Your task to perform on an android device: Open the phone app and click the voicemail tab. Image 0: 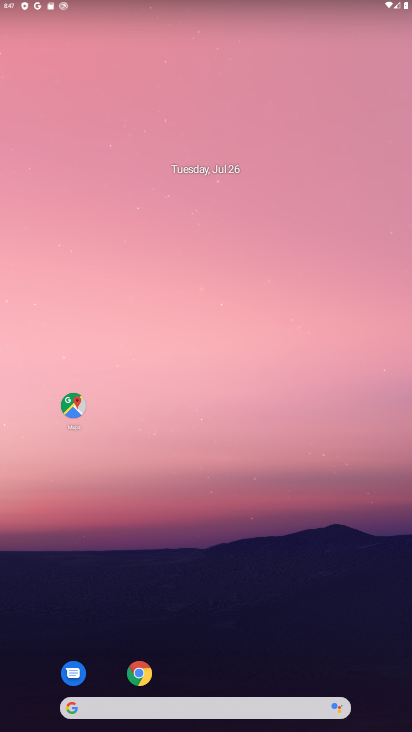
Step 0: press back button
Your task to perform on an android device: Open the phone app and click the voicemail tab. Image 1: 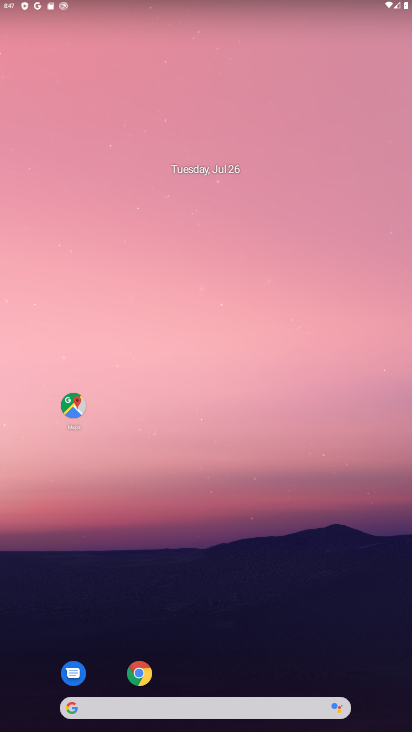
Step 1: drag from (304, 676) to (201, 139)
Your task to perform on an android device: Open the phone app and click the voicemail tab. Image 2: 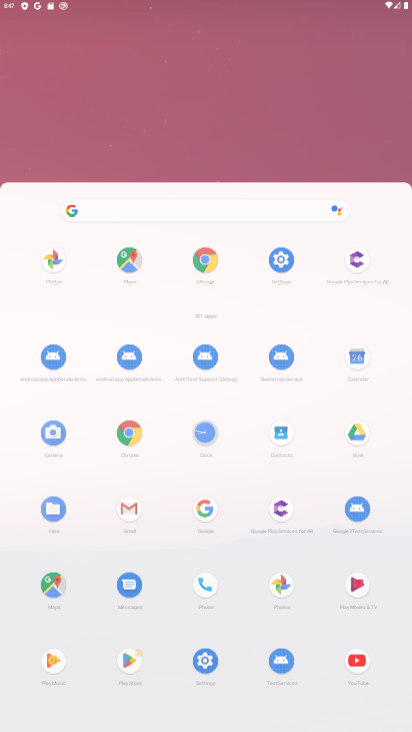
Step 2: drag from (258, 614) to (159, 140)
Your task to perform on an android device: Open the phone app and click the voicemail tab. Image 3: 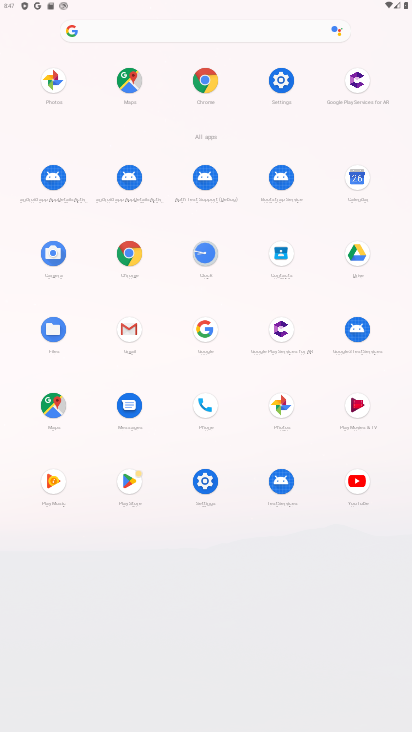
Step 3: click (206, 479)
Your task to perform on an android device: Open the phone app and click the voicemail tab. Image 4: 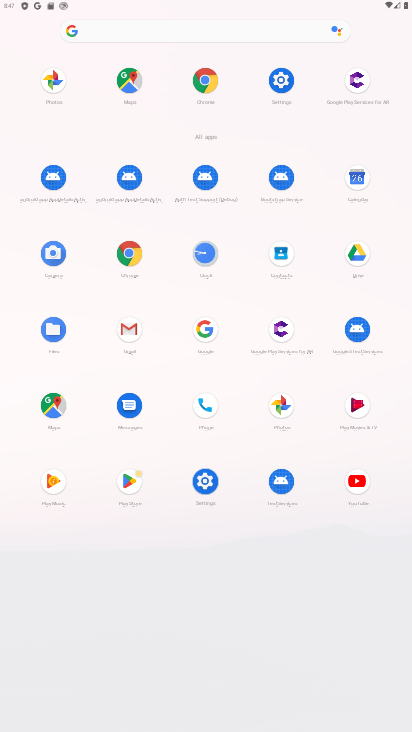
Step 4: click (204, 482)
Your task to perform on an android device: Open the phone app and click the voicemail tab. Image 5: 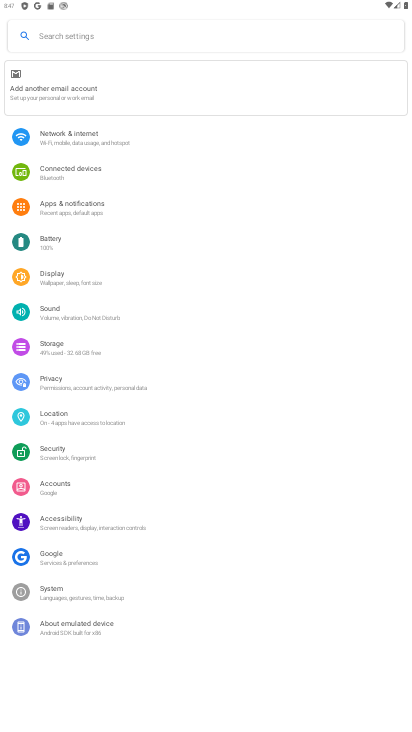
Step 5: click (69, 289)
Your task to perform on an android device: Open the phone app and click the voicemail tab. Image 6: 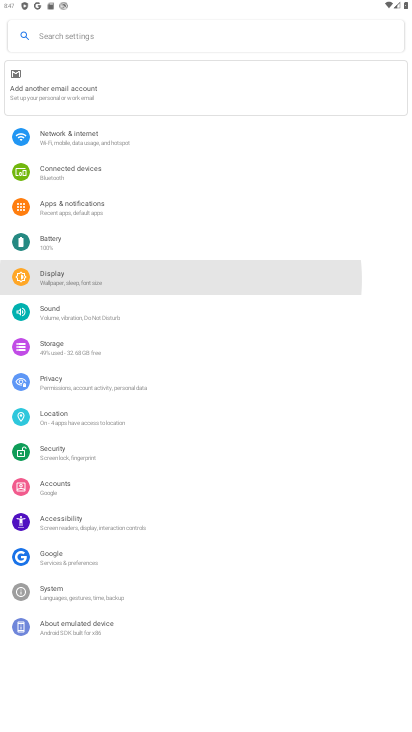
Step 6: click (72, 292)
Your task to perform on an android device: Open the phone app and click the voicemail tab. Image 7: 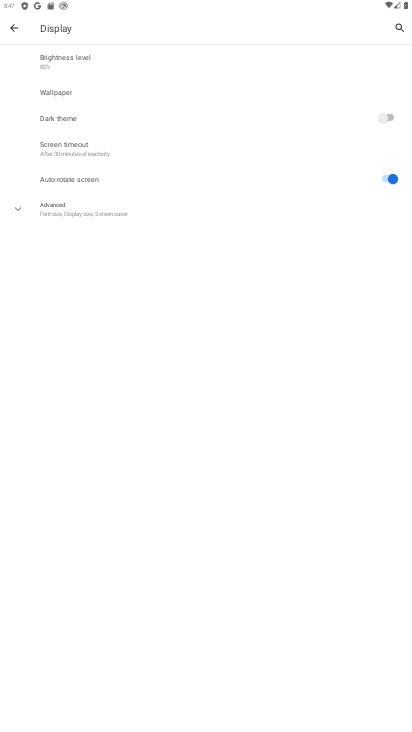
Step 7: click (70, 207)
Your task to perform on an android device: Open the phone app and click the voicemail tab. Image 8: 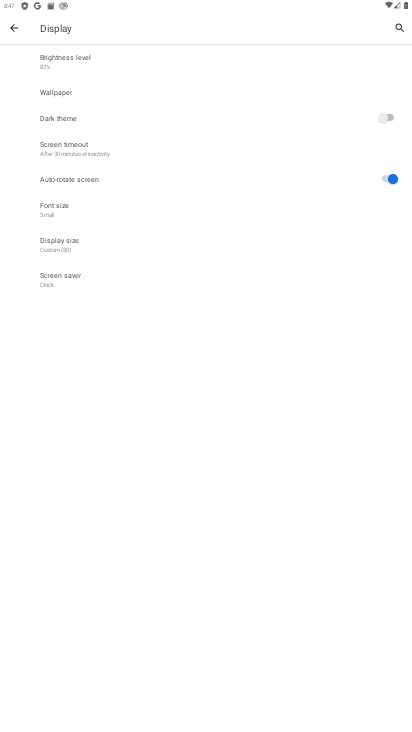
Step 8: click (46, 207)
Your task to perform on an android device: Open the phone app and click the voicemail tab. Image 9: 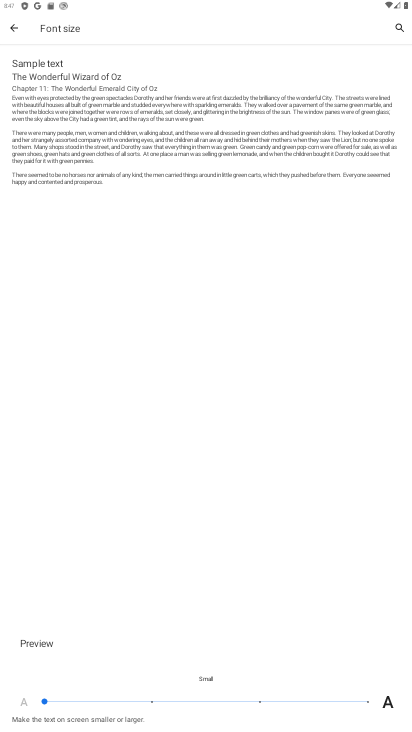
Step 9: click (355, 691)
Your task to perform on an android device: Open the phone app and click the voicemail tab. Image 10: 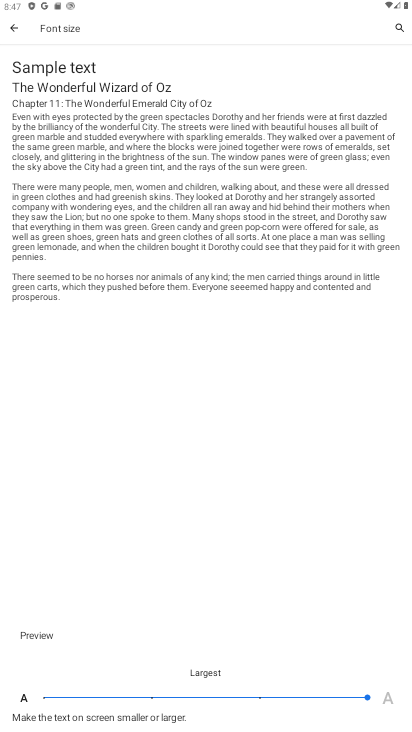
Step 10: click (14, 26)
Your task to perform on an android device: Open the phone app and click the voicemail tab. Image 11: 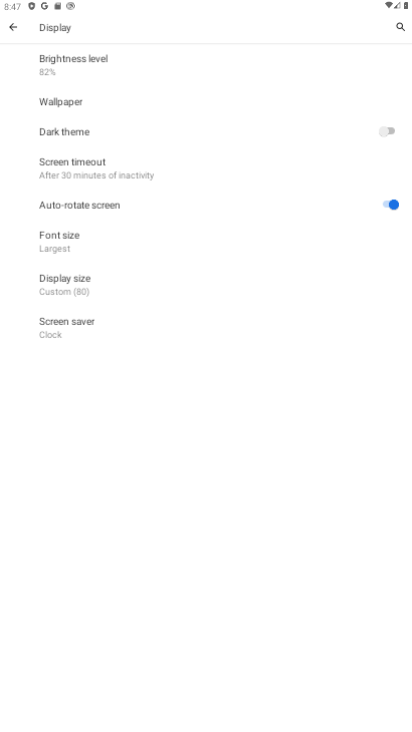
Step 11: press back button
Your task to perform on an android device: Open the phone app and click the voicemail tab. Image 12: 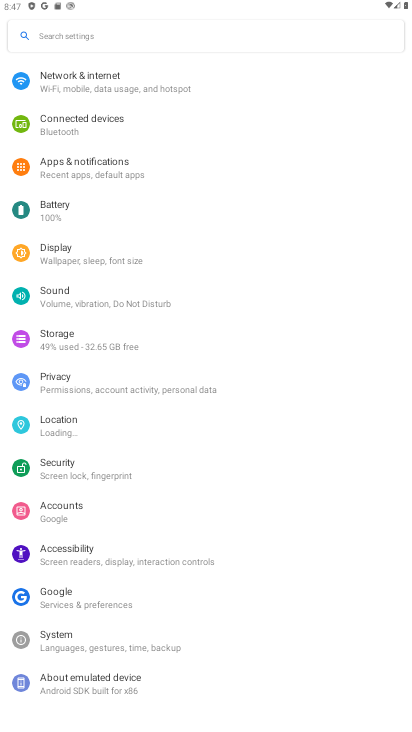
Step 12: press back button
Your task to perform on an android device: Open the phone app and click the voicemail tab. Image 13: 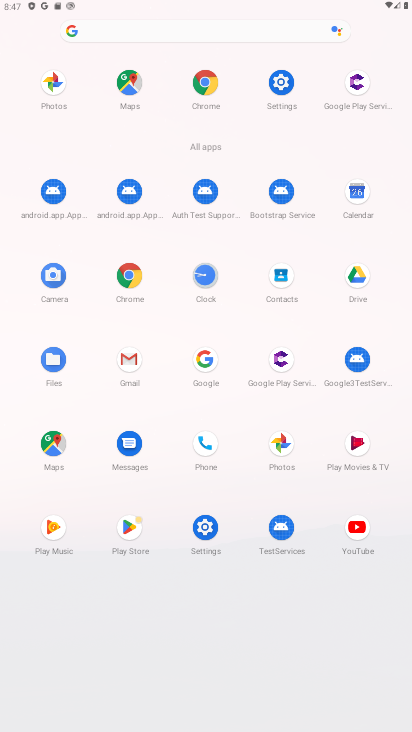
Step 13: click (192, 442)
Your task to perform on an android device: Open the phone app and click the voicemail tab. Image 14: 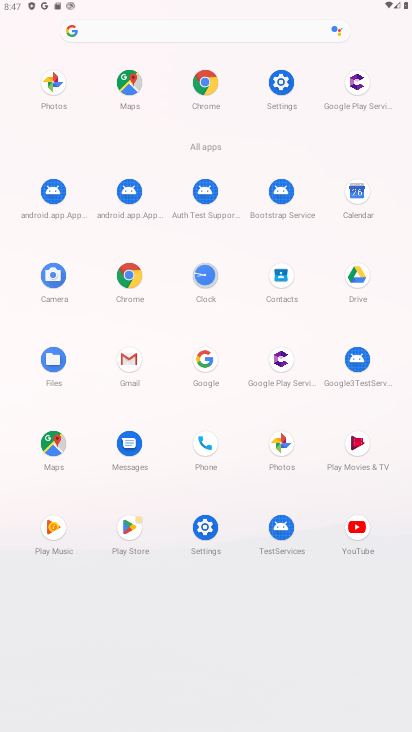
Step 14: click (202, 456)
Your task to perform on an android device: Open the phone app and click the voicemail tab. Image 15: 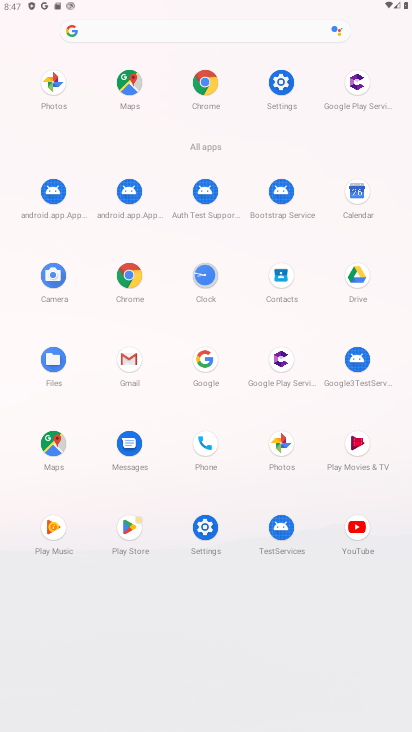
Step 15: click (203, 456)
Your task to perform on an android device: Open the phone app and click the voicemail tab. Image 16: 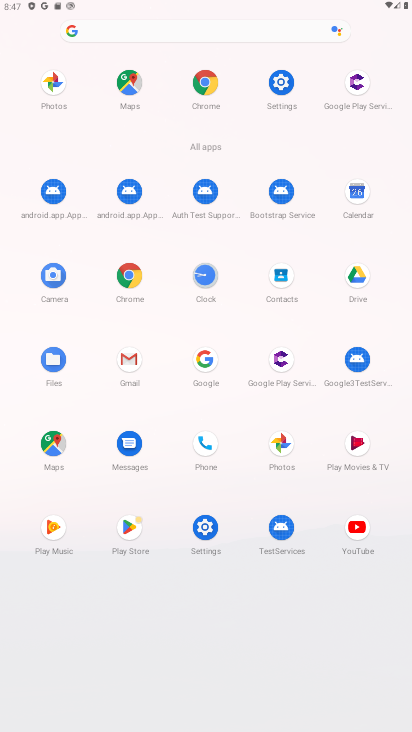
Step 16: click (204, 457)
Your task to perform on an android device: Open the phone app and click the voicemail tab. Image 17: 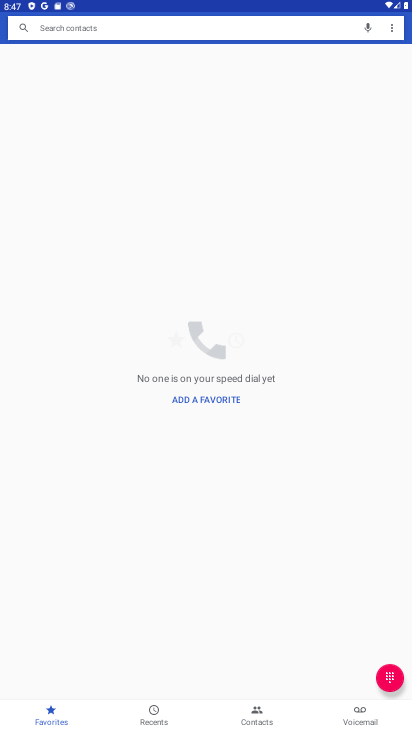
Step 17: click (359, 697)
Your task to perform on an android device: Open the phone app and click the voicemail tab. Image 18: 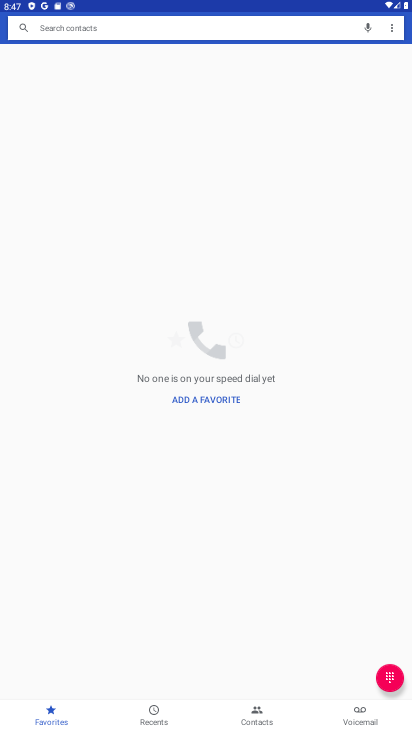
Step 18: click (359, 697)
Your task to perform on an android device: Open the phone app and click the voicemail tab. Image 19: 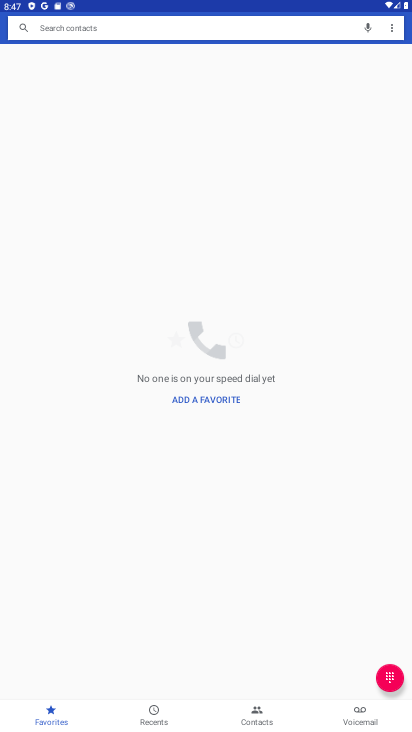
Step 19: click (356, 709)
Your task to perform on an android device: Open the phone app and click the voicemail tab. Image 20: 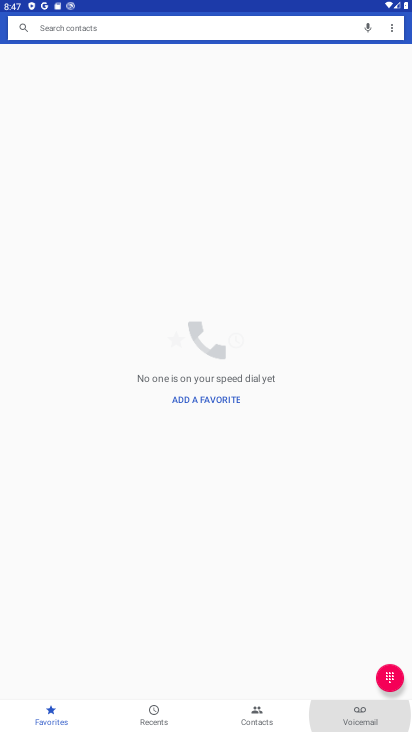
Step 20: click (356, 709)
Your task to perform on an android device: Open the phone app and click the voicemail tab. Image 21: 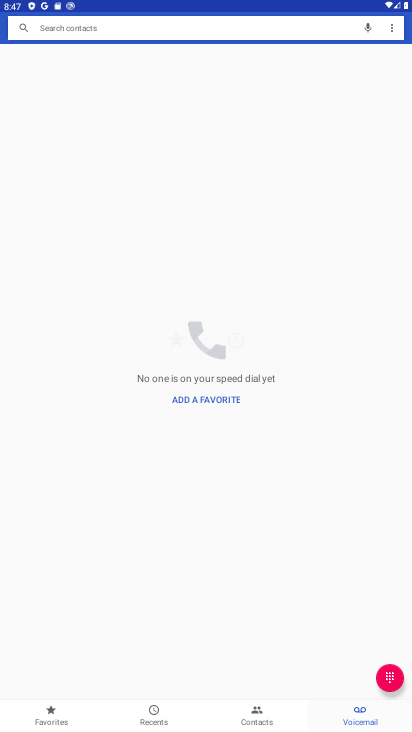
Step 21: click (356, 709)
Your task to perform on an android device: Open the phone app and click the voicemail tab. Image 22: 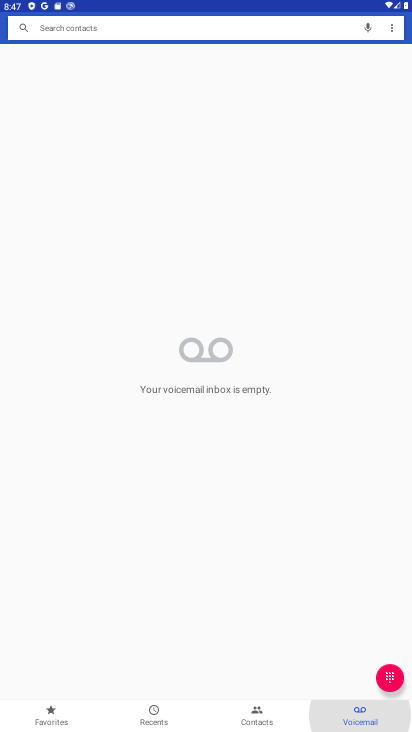
Step 22: click (356, 709)
Your task to perform on an android device: Open the phone app and click the voicemail tab. Image 23: 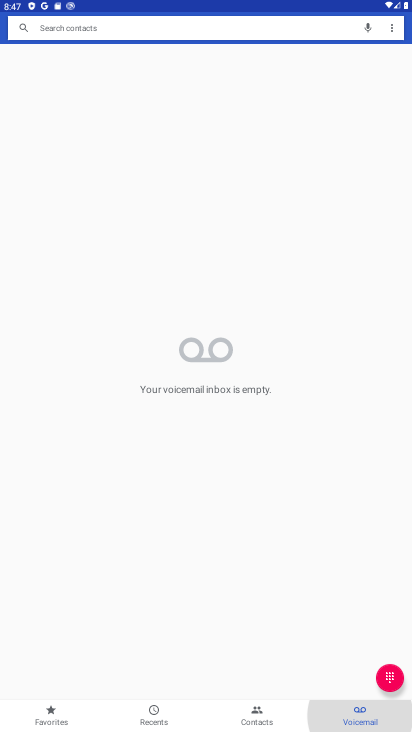
Step 23: click (356, 709)
Your task to perform on an android device: Open the phone app and click the voicemail tab. Image 24: 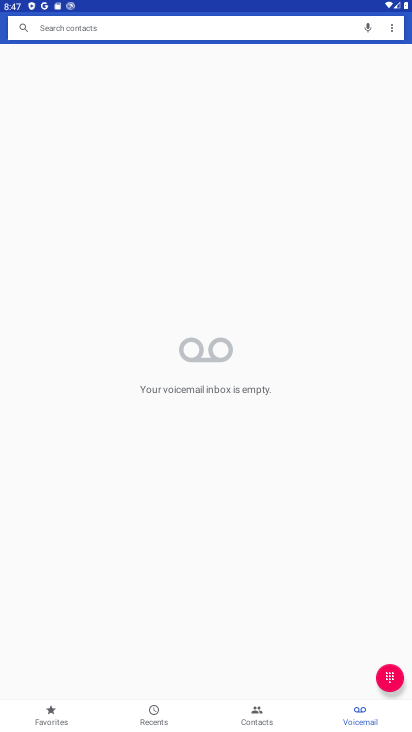
Step 24: task complete